Your task to perform on an android device: Search for Italian restaurants on Maps Image 0: 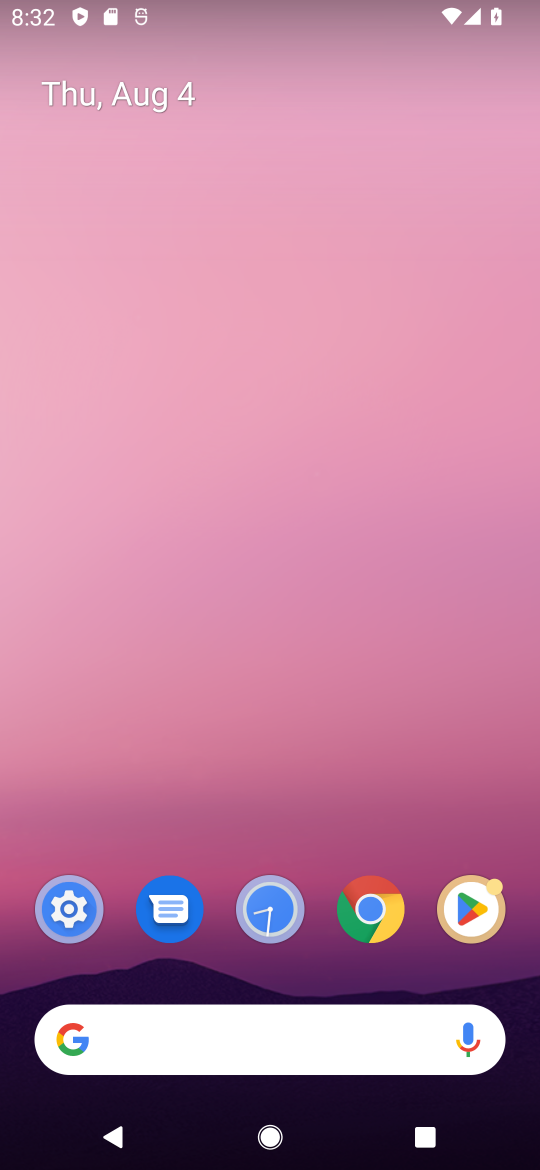
Step 0: drag from (302, 844) to (273, 251)
Your task to perform on an android device: Search for Italian restaurants on Maps Image 1: 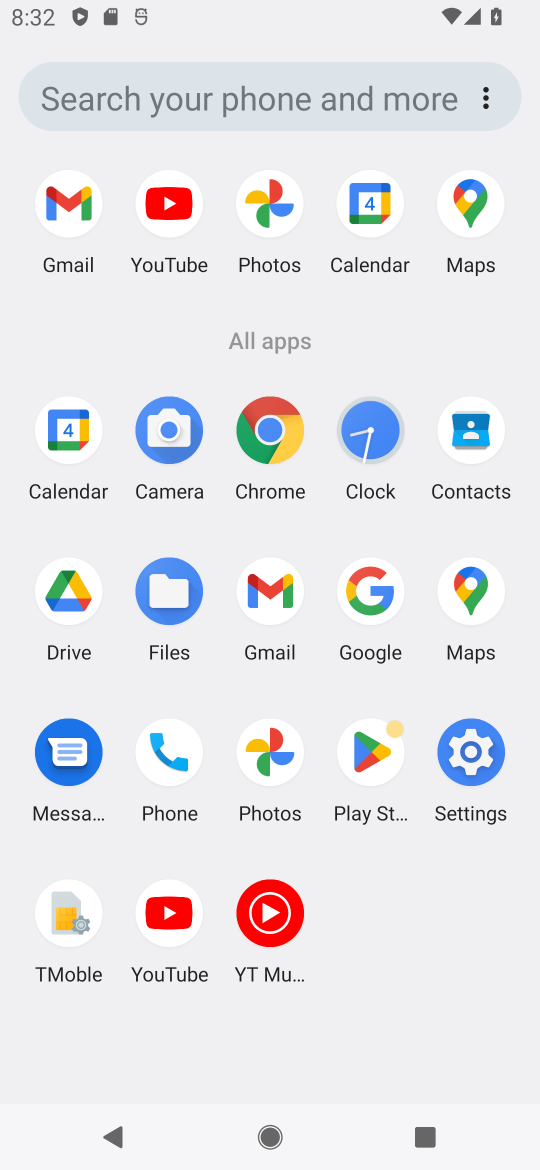
Step 1: click (464, 598)
Your task to perform on an android device: Search for Italian restaurants on Maps Image 2: 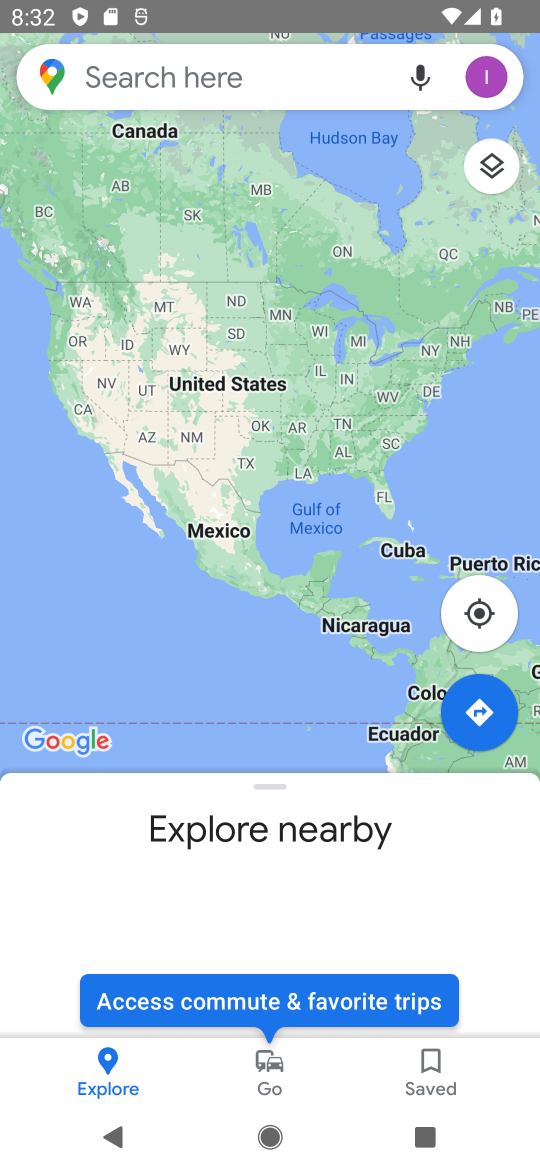
Step 2: click (221, 69)
Your task to perform on an android device: Search for Italian restaurants on Maps Image 3: 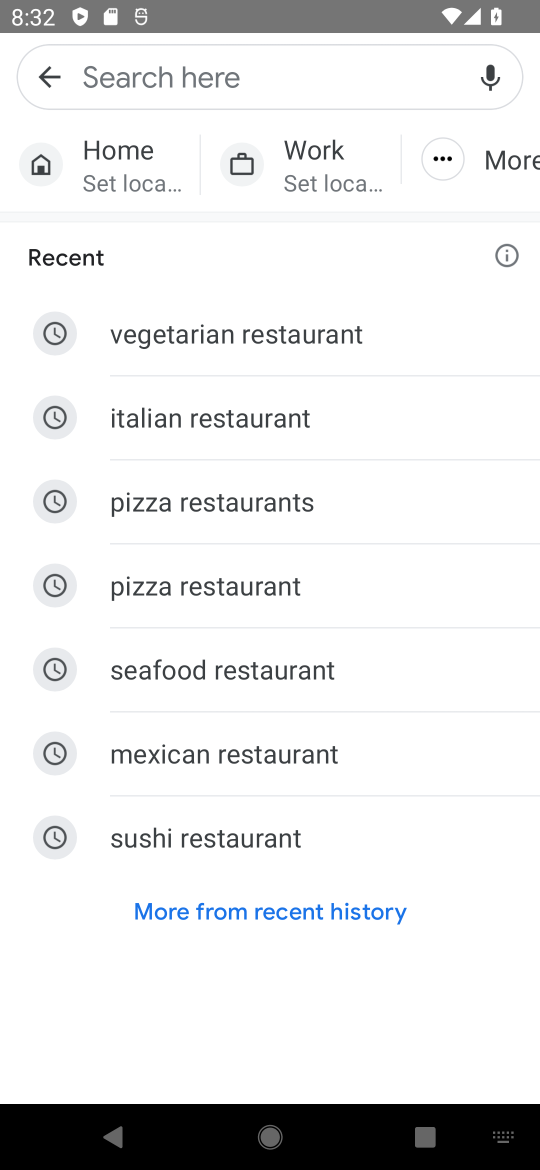
Step 3: type "italian restaurants"
Your task to perform on an android device: Search for Italian restaurants on Maps Image 4: 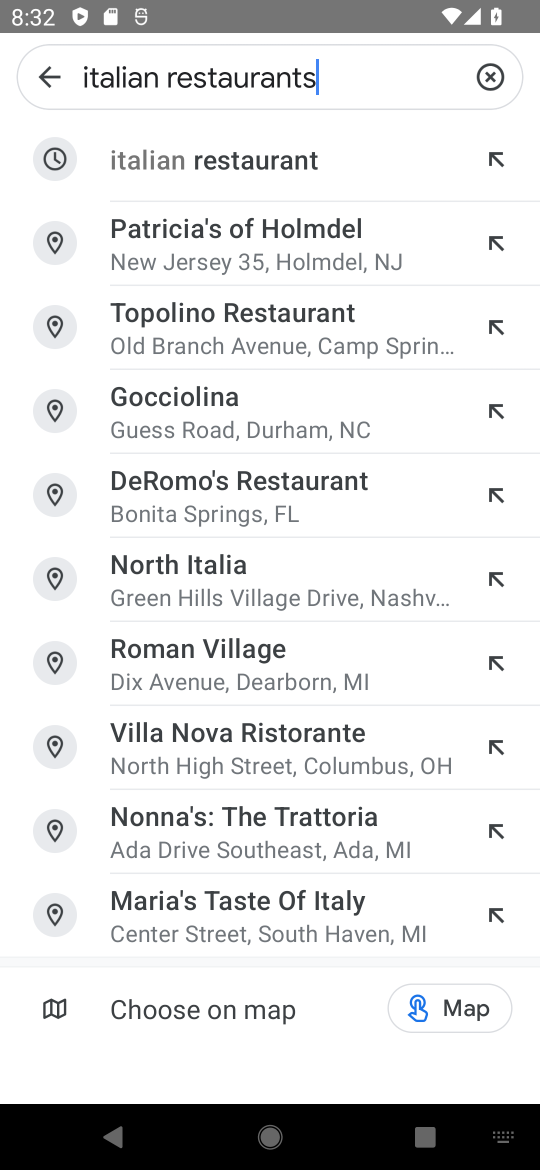
Step 4: click (337, 172)
Your task to perform on an android device: Search for Italian restaurants on Maps Image 5: 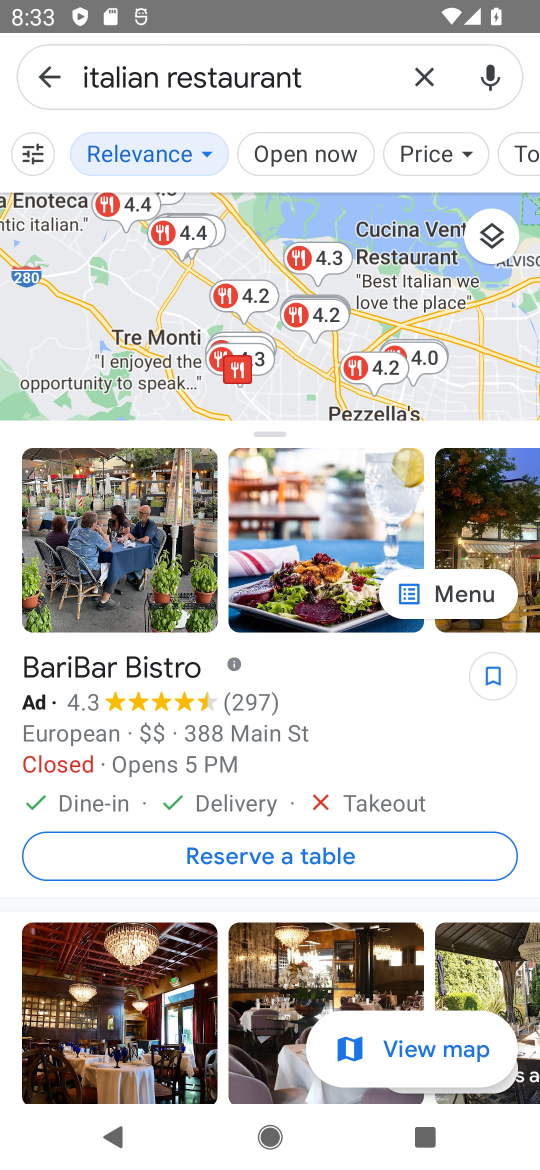
Step 5: task complete